Your task to perform on an android device: allow notifications from all sites in the chrome app Image 0: 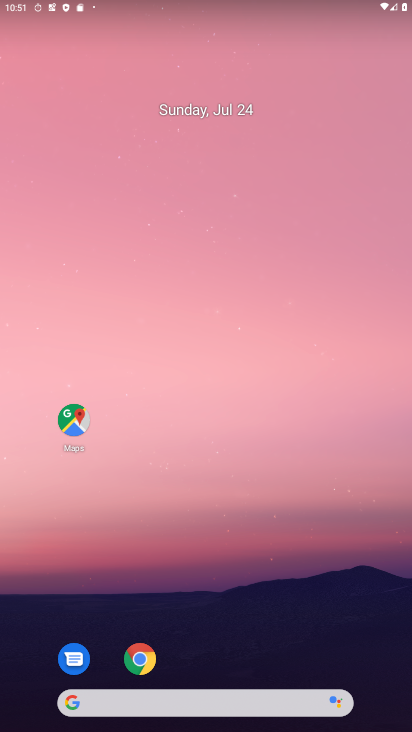
Step 0: click (140, 659)
Your task to perform on an android device: allow notifications from all sites in the chrome app Image 1: 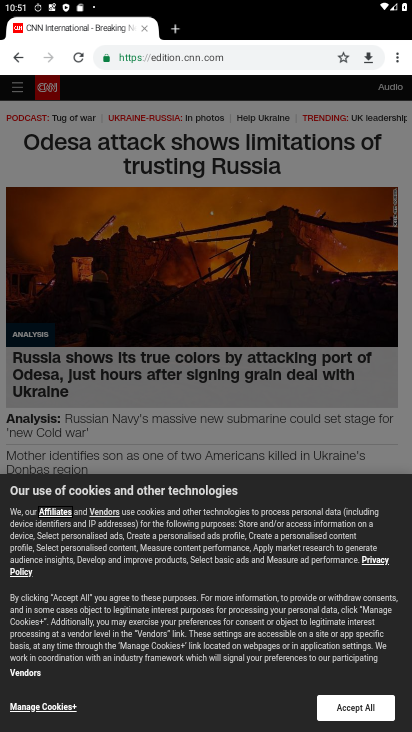
Step 1: click (396, 56)
Your task to perform on an android device: allow notifications from all sites in the chrome app Image 2: 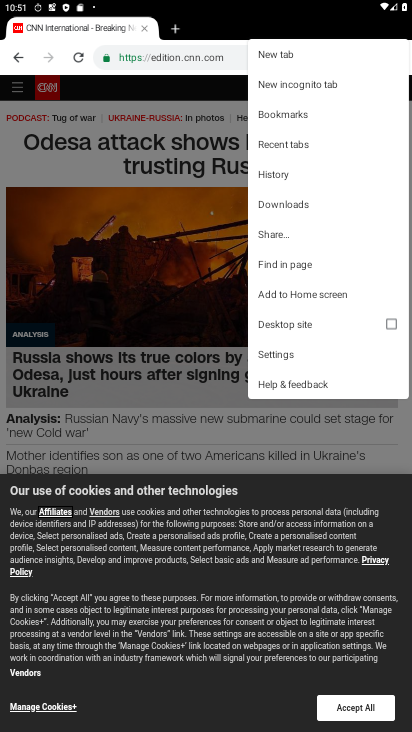
Step 2: click (276, 353)
Your task to perform on an android device: allow notifications from all sites in the chrome app Image 3: 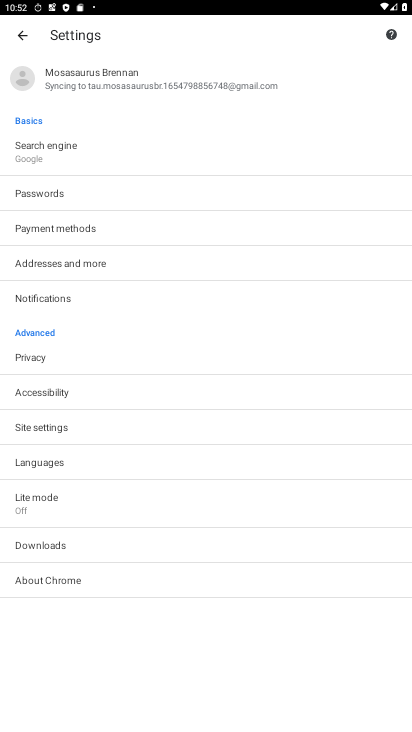
Step 3: click (60, 296)
Your task to perform on an android device: allow notifications from all sites in the chrome app Image 4: 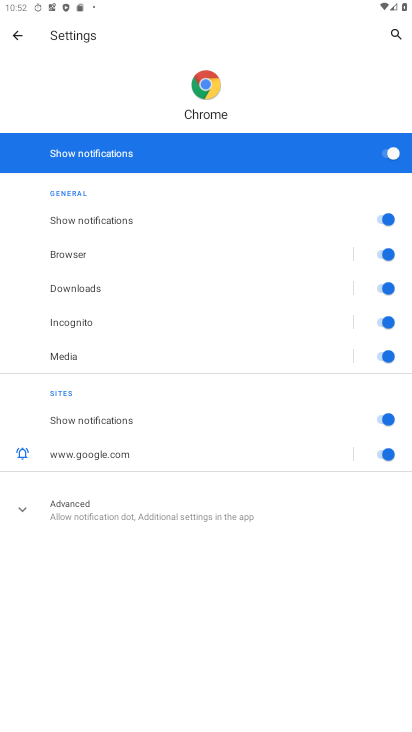
Step 4: task complete